Your task to perform on an android device: Go to notification settings Image 0: 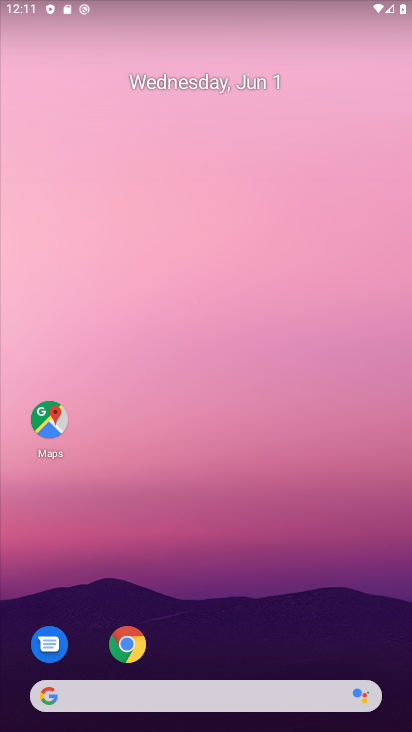
Step 0: press home button
Your task to perform on an android device: Go to notification settings Image 1: 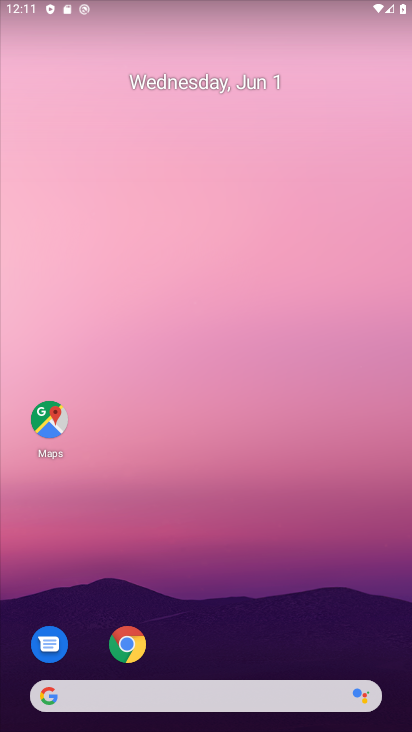
Step 1: drag from (275, 644) to (203, 36)
Your task to perform on an android device: Go to notification settings Image 2: 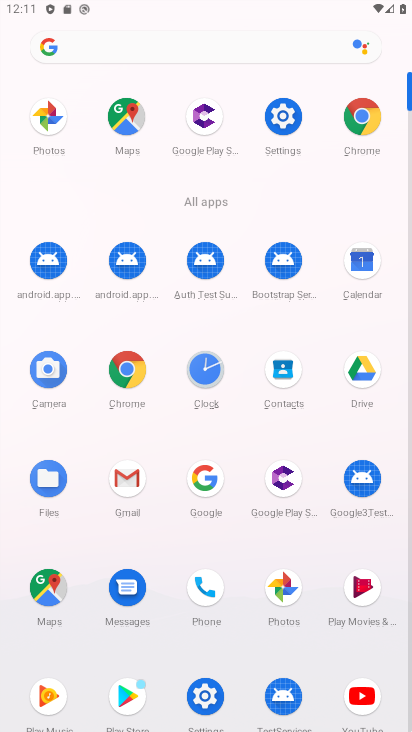
Step 2: click (198, 689)
Your task to perform on an android device: Go to notification settings Image 3: 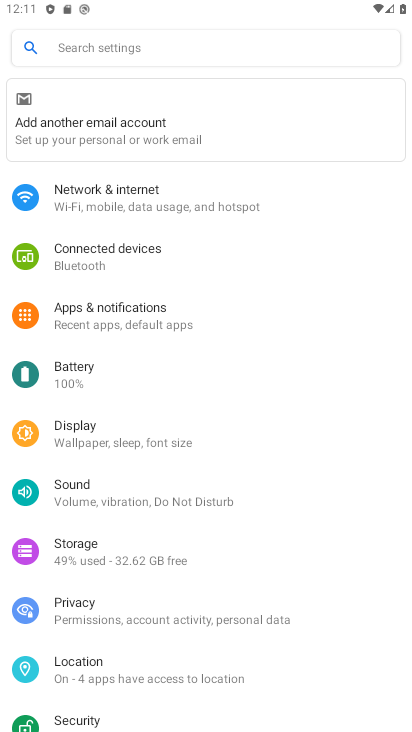
Step 3: click (147, 318)
Your task to perform on an android device: Go to notification settings Image 4: 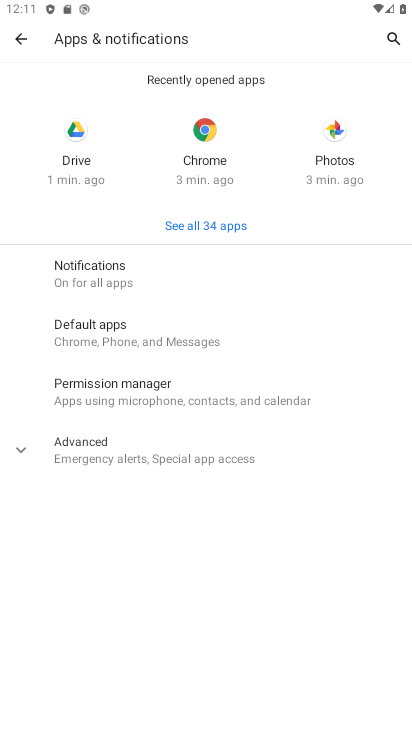
Step 4: task complete